Your task to perform on an android device: set an alarm Image 0: 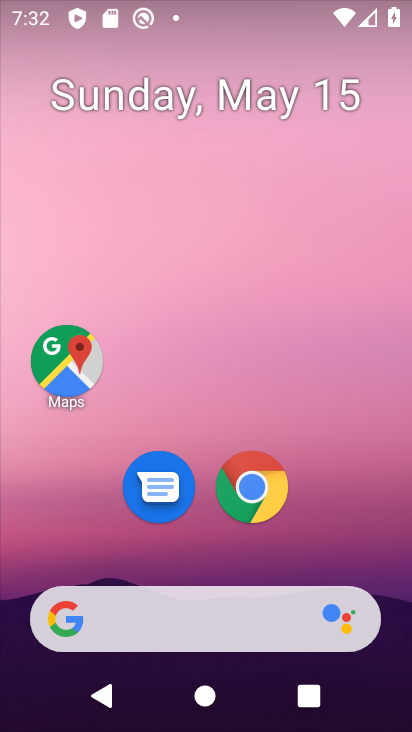
Step 0: drag from (373, 519) to (355, 132)
Your task to perform on an android device: set an alarm Image 1: 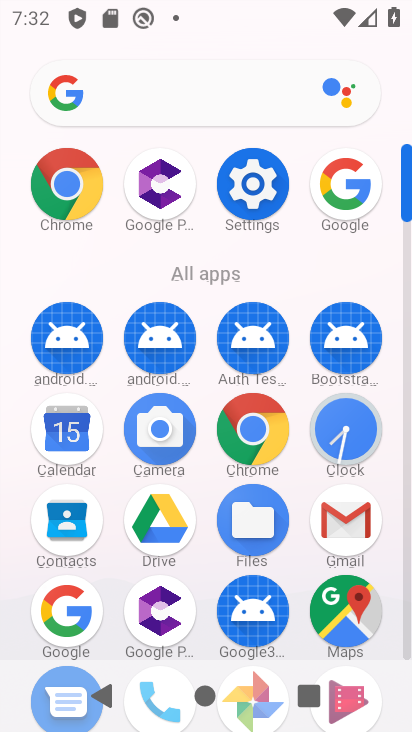
Step 1: click (337, 415)
Your task to perform on an android device: set an alarm Image 2: 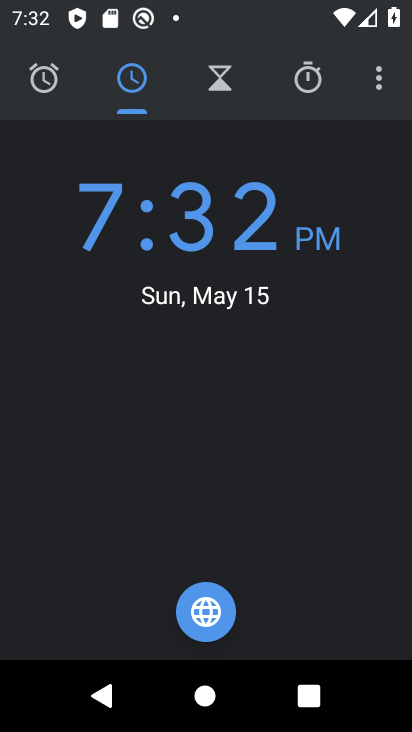
Step 2: click (51, 80)
Your task to perform on an android device: set an alarm Image 3: 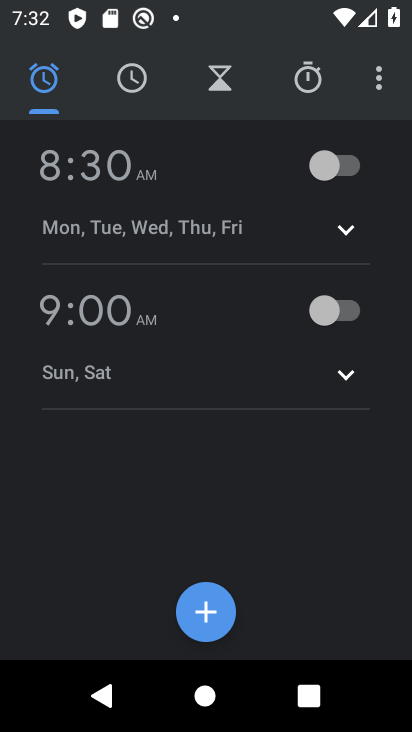
Step 3: click (205, 614)
Your task to perform on an android device: set an alarm Image 4: 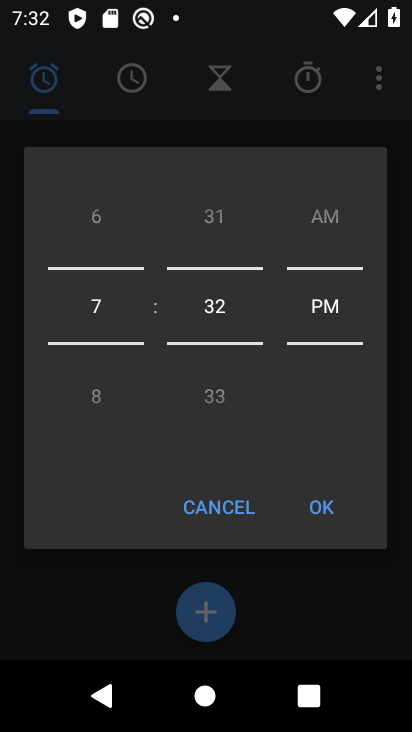
Step 4: click (330, 511)
Your task to perform on an android device: set an alarm Image 5: 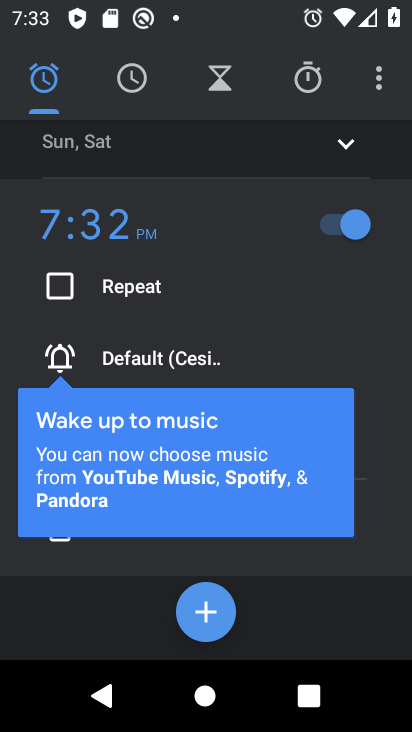
Step 5: task complete